Your task to perform on an android device: turn off picture-in-picture Image 0: 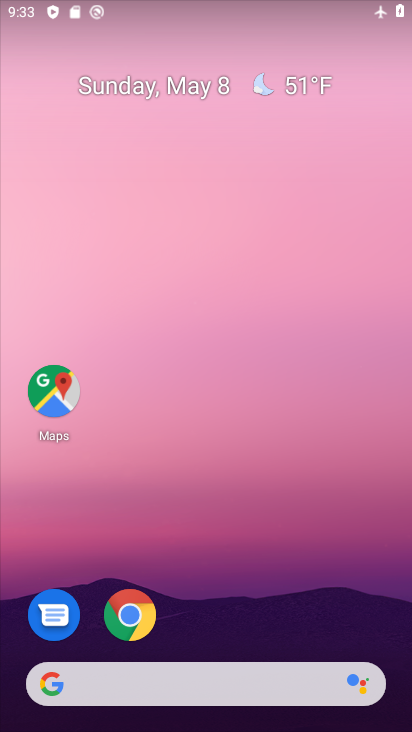
Step 0: click (146, 615)
Your task to perform on an android device: turn off picture-in-picture Image 1: 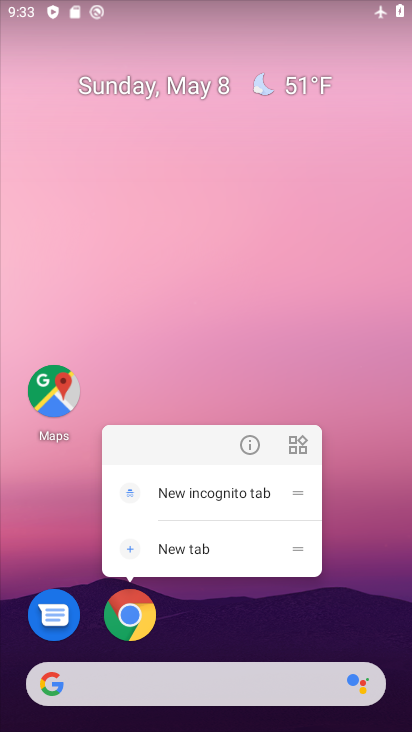
Step 1: click (242, 448)
Your task to perform on an android device: turn off picture-in-picture Image 2: 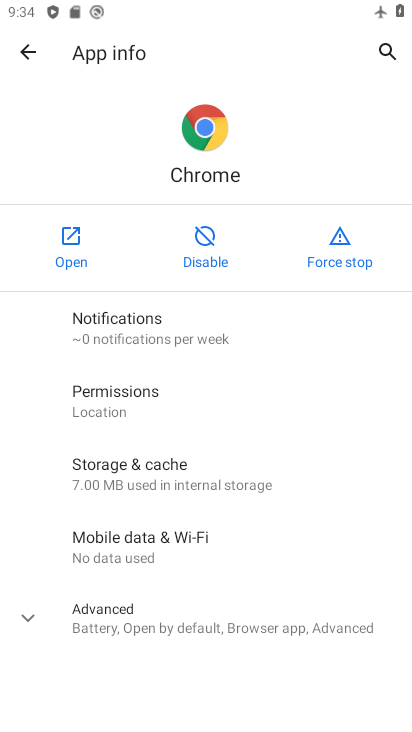
Step 2: drag from (245, 646) to (238, 374)
Your task to perform on an android device: turn off picture-in-picture Image 3: 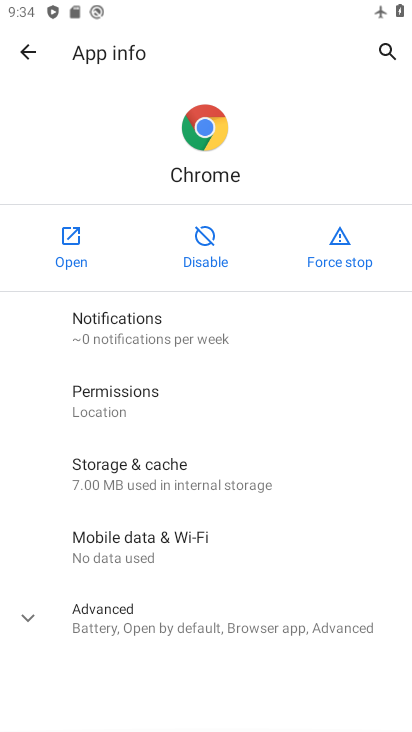
Step 3: click (149, 628)
Your task to perform on an android device: turn off picture-in-picture Image 4: 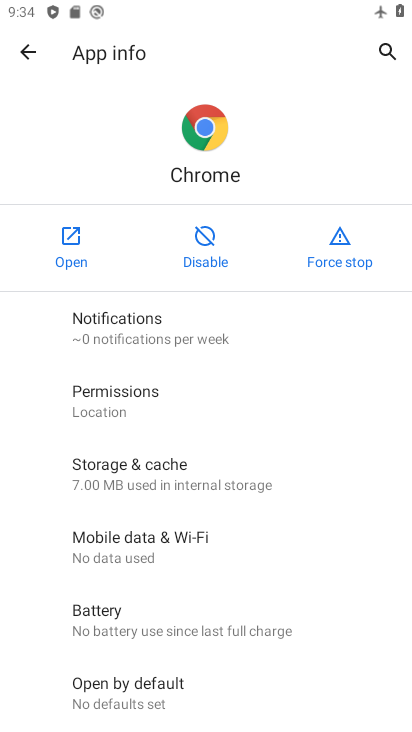
Step 4: drag from (208, 689) to (265, 378)
Your task to perform on an android device: turn off picture-in-picture Image 5: 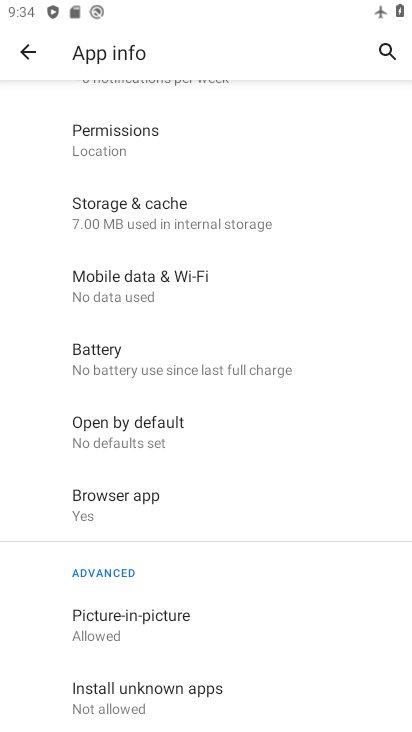
Step 5: click (170, 615)
Your task to perform on an android device: turn off picture-in-picture Image 6: 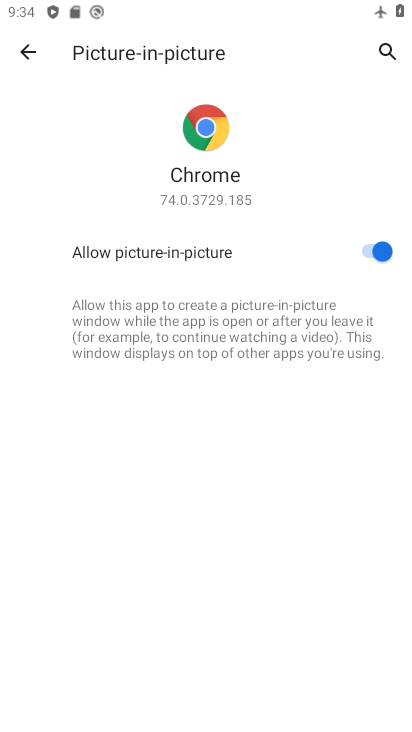
Step 6: click (365, 244)
Your task to perform on an android device: turn off picture-in-picture Image 7: 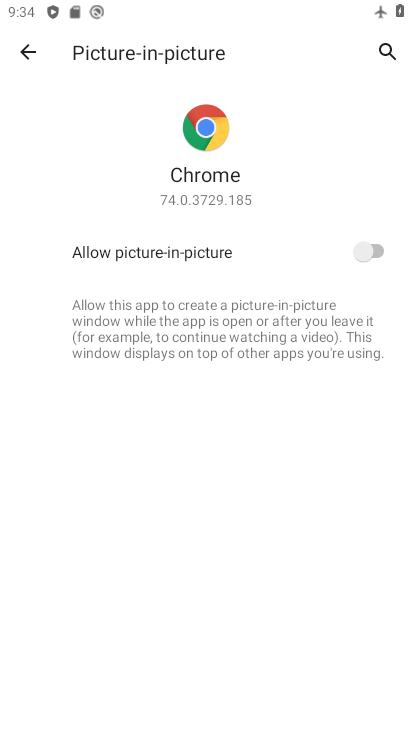
Step 7: task complete